Your task to perform on an android device: Open CNN.com Image 0: 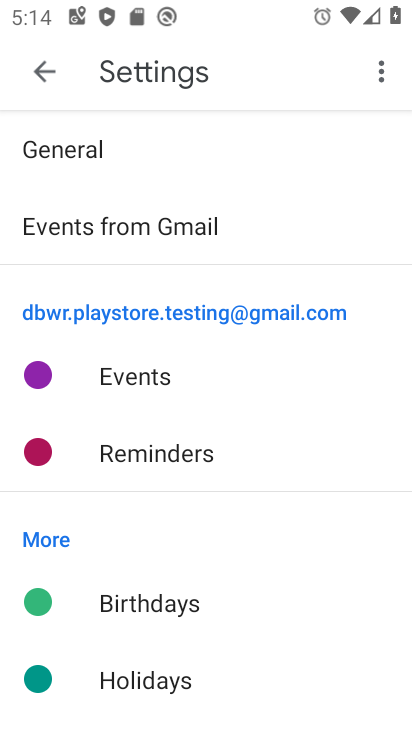
Step 0: press home button
Your task to perform on an android device: Open CNN.com Image 1: 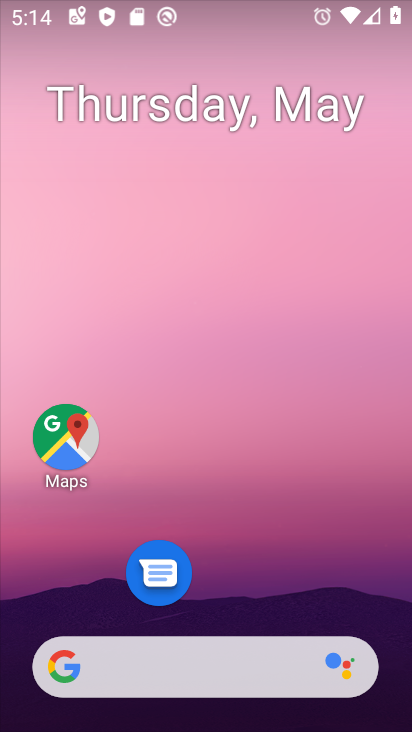
Step 1: drag from (275, 583) to (245, 89)
Your task to perform on an android device: Open CNN.com Image 2: 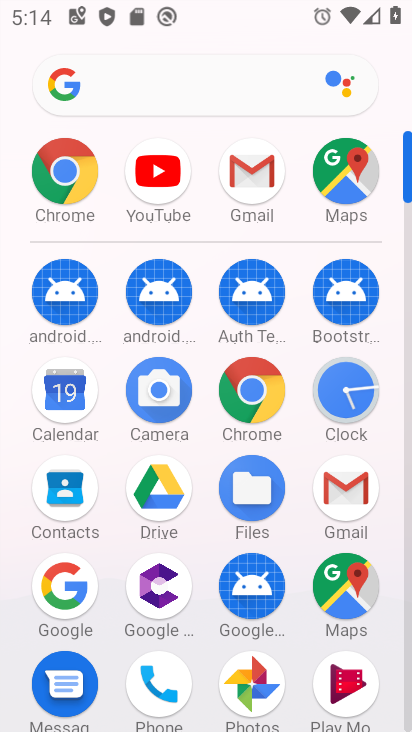
Step 2: click (68, 208)
Your task to perform on an android device: Open CNN.com Image 3: 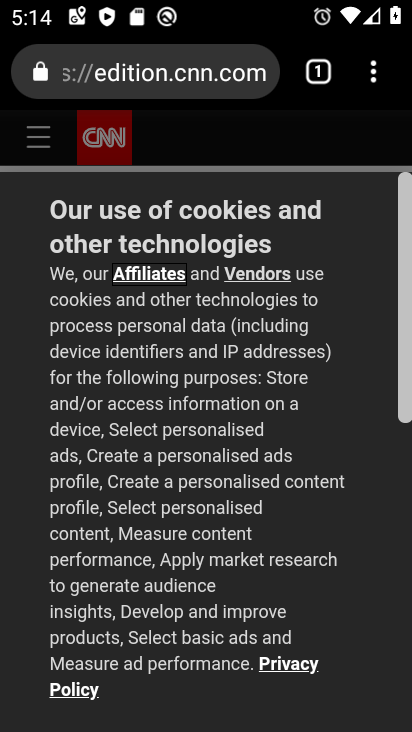
Step 3: click (212, 87)
Your task to perform on an android device: Open CNN.com Image 4: 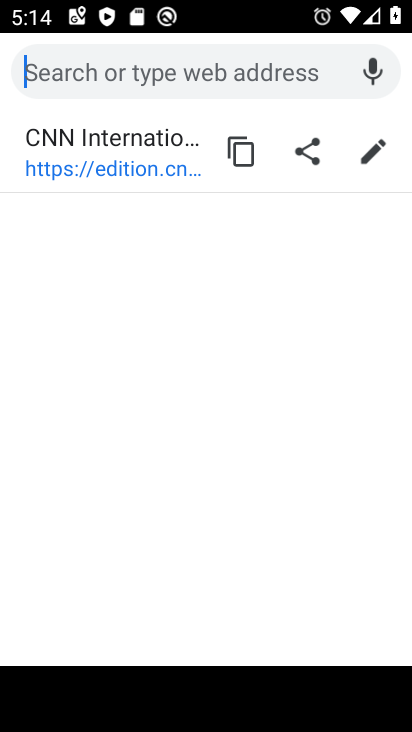
Step 4: task complete